Your task to perform on an android device: What is the recent news? Image 0: 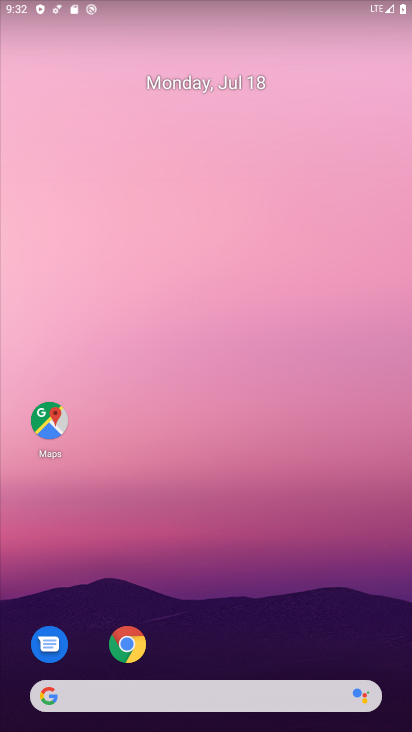
Step 0: drag from (5, 264) to (408, 380)
Your task to perform on an android device: What is the recent news? Image 1: 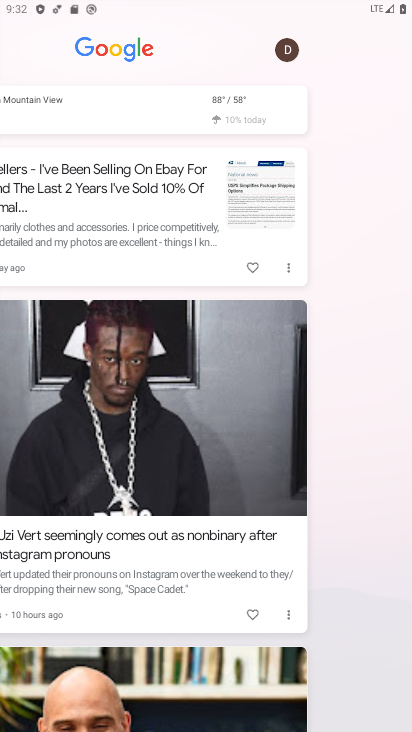
Step 1: task complete